Your task to perform on an android device: Open Maps and search for coffee Image 0: 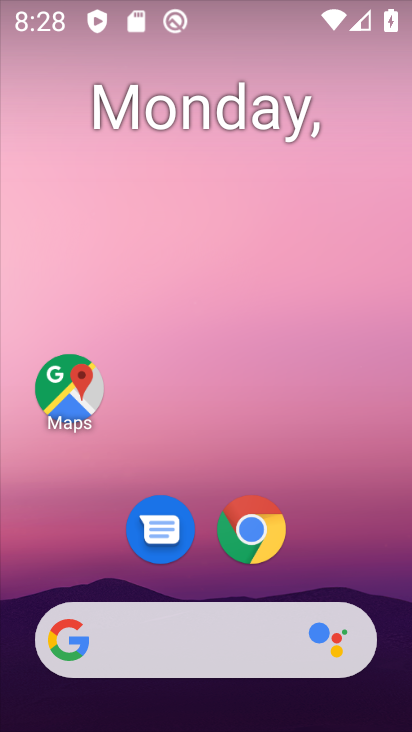
Step 0: press home button
Your task to perform on an android device: Open Maps and search for coffee Image 1: 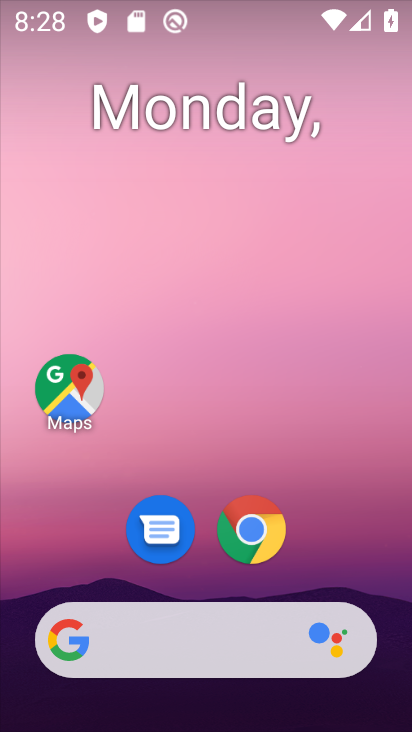
Step 1: click (73, 387)
Your task to perform on an android device: Open Maps and search for coffee Image 2: 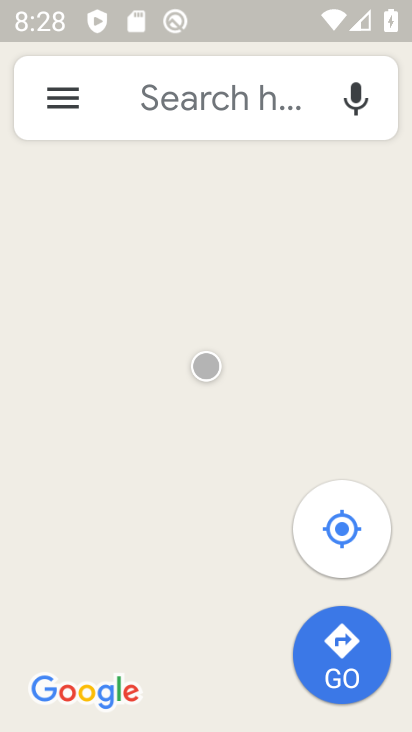
Step 2: click (243, 106)
Your task to perform on an android device: Open Maps and search for coffee Image 3: 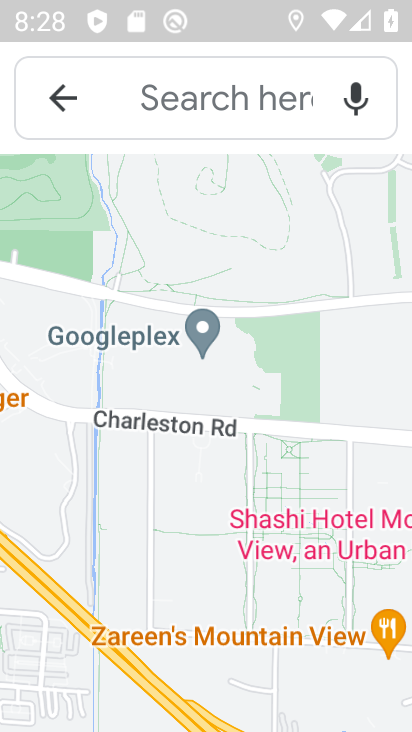
Step 3: click (236, 90)
Your task to perform on an android device: Open Maps and search for coffee Image 4: 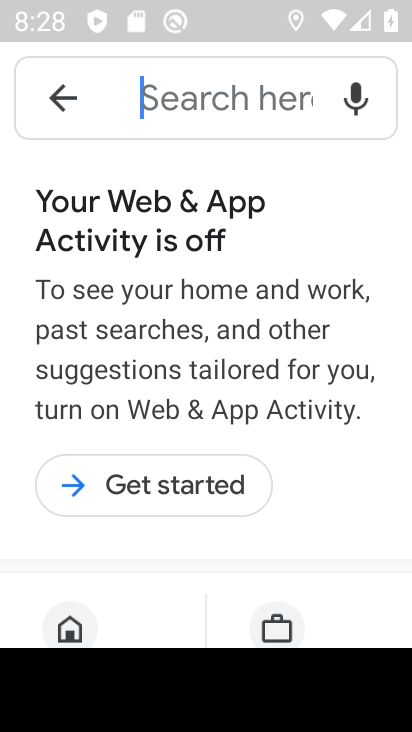
Step 4: click (205, 73)
Your task to perform on an android device: Open Maps and search for coffee Image 5: 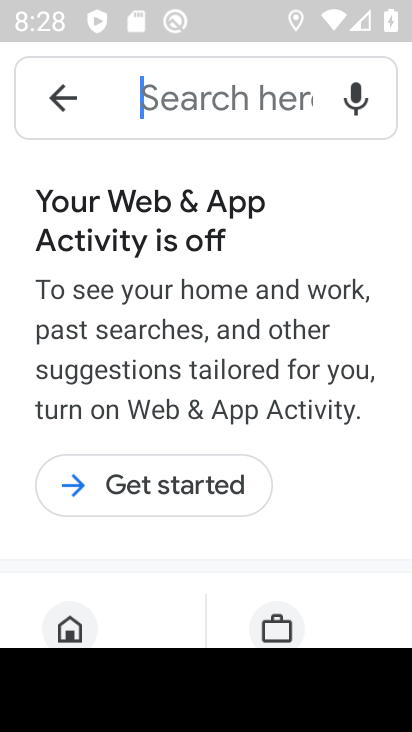
Step 5: type "coffee"
Your task to perform on an android device: Open Maps and search for coffee Image 6: 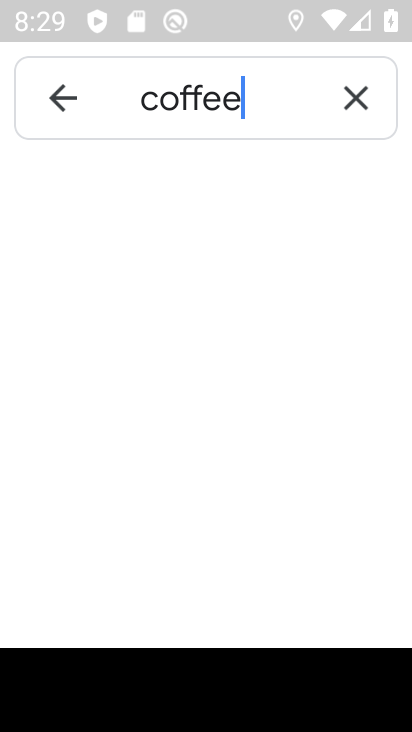
Step 6: type ""
Your task to perform on an android device: Open Maps and search for coffee Image 7: 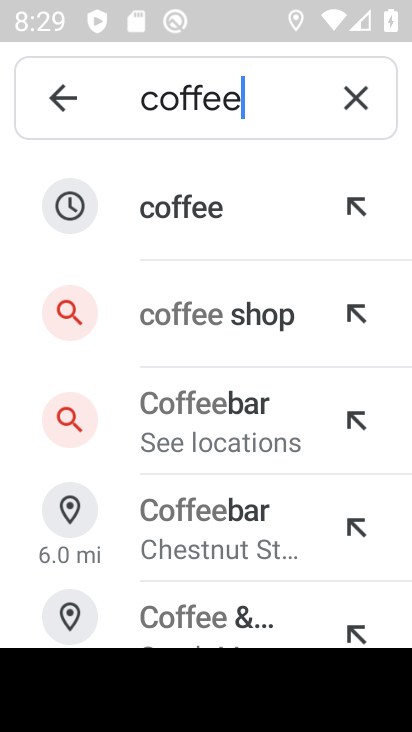
Step 7: click (219, 203)
Your task to perform on an android device: Open Maps and search for coffee Image 8: 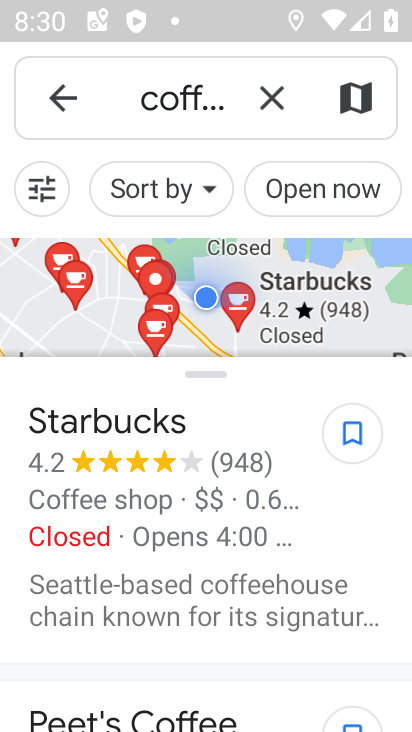
Step 8: task complete